Your task to perform on an android device: Look up the best rated gaming chair on Best Buy Image 0: 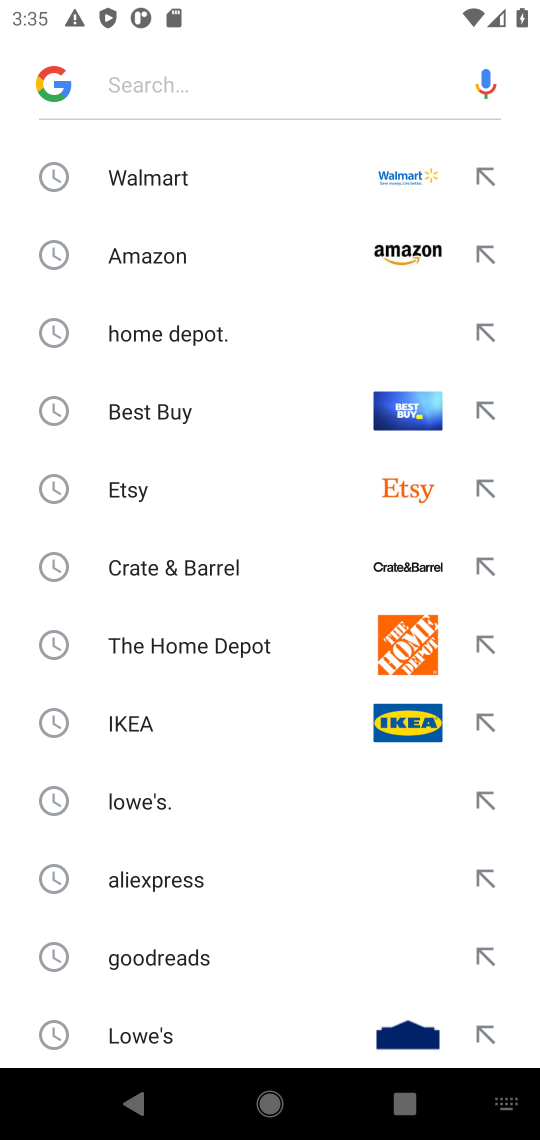
Step 0: press home button
Your task to perform on an android device: Look up the best rated gaming chair on Best Buy Image 1: 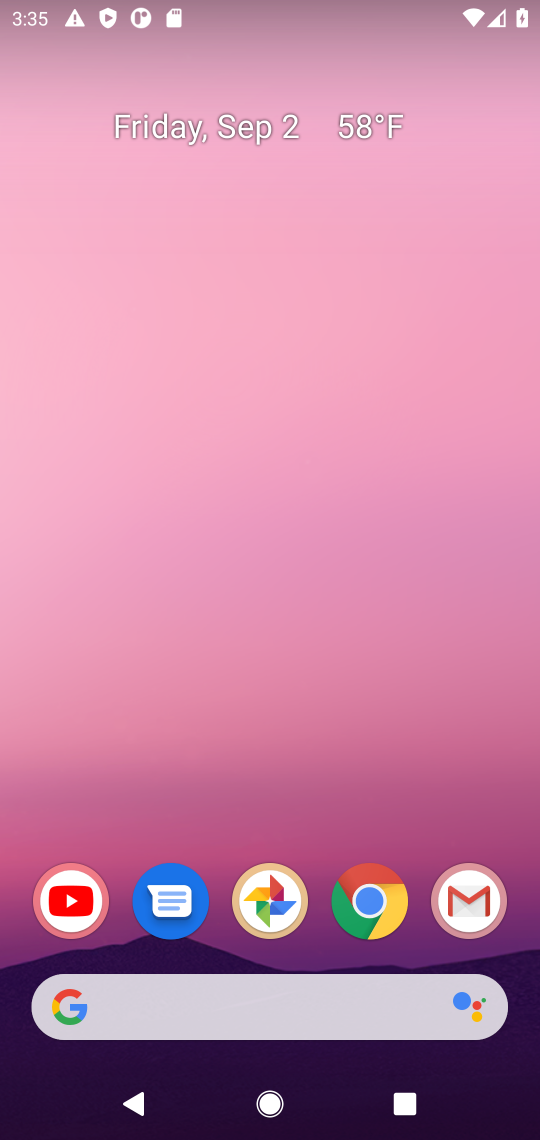
Step 1: drag from (366, 5) to (440, 62)
Your task to perform on an android device: Look up the best rated gaming chair on Best Buy Image 2: 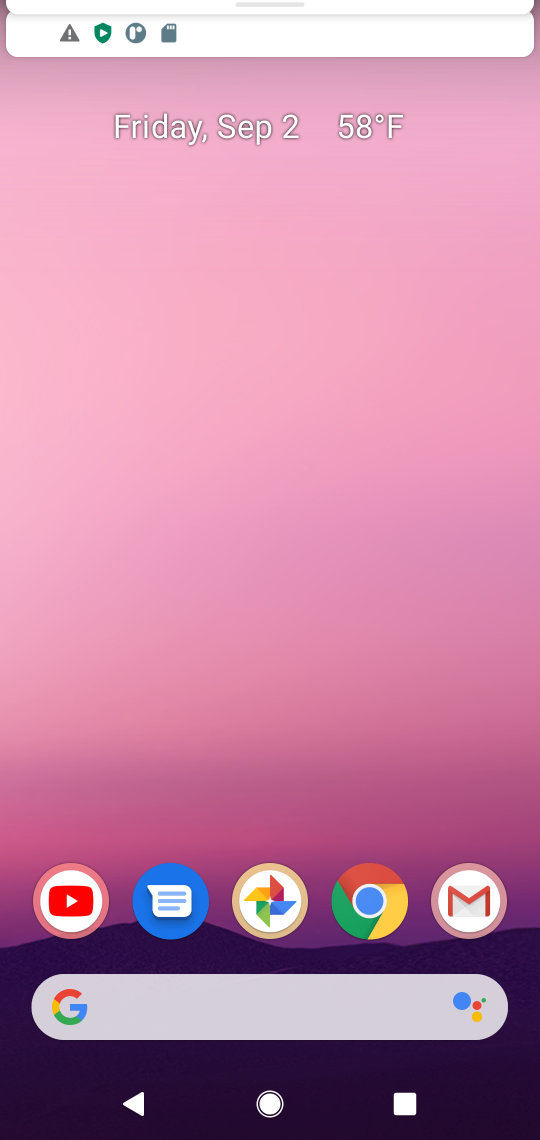
Step 2: drag from (406, 809) to (30, 71)
Your task to perform on an android device: Look up the best rated gaming chair on Best Buy Image 3: 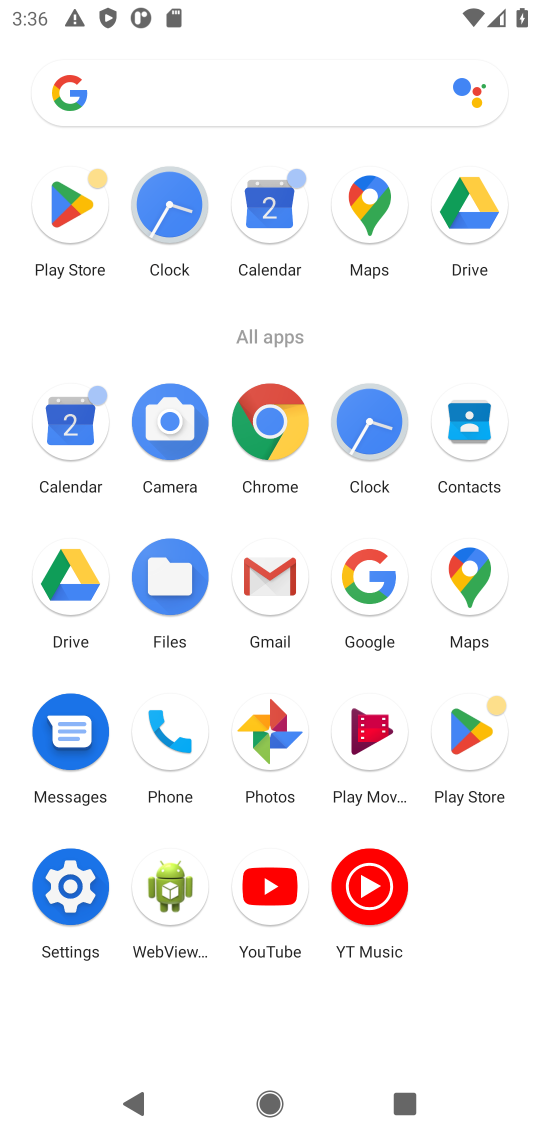
Step 3: click (384, 589)
Your task to perform on an android device: Look up the best rated gaming chair on Best Buy Image 4: 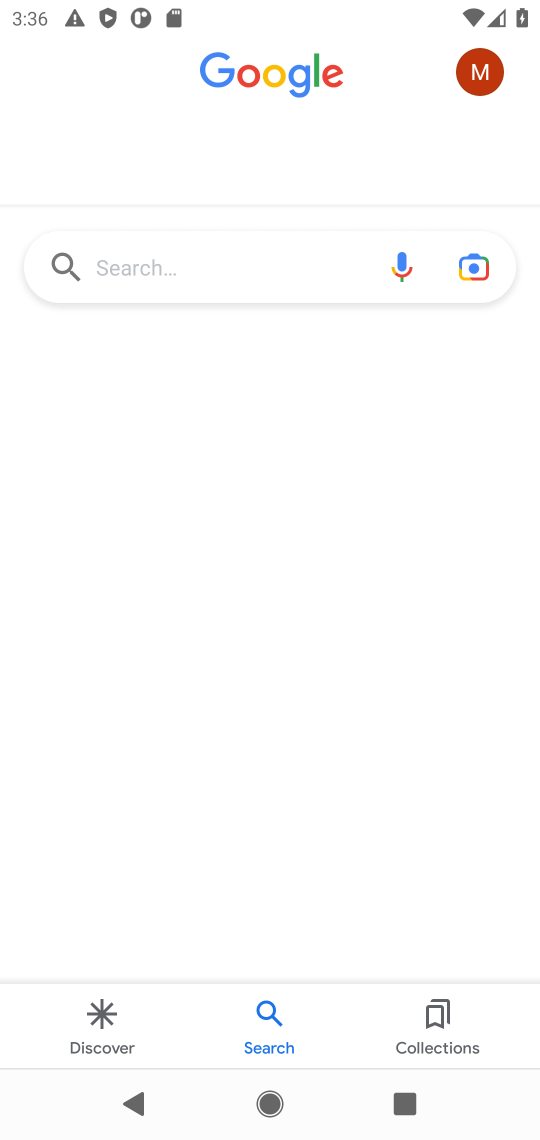
Step 4: click (133, 256)
Your task to perform on an android device: Look up the best rated gaming chair on Best Buy Image 5: 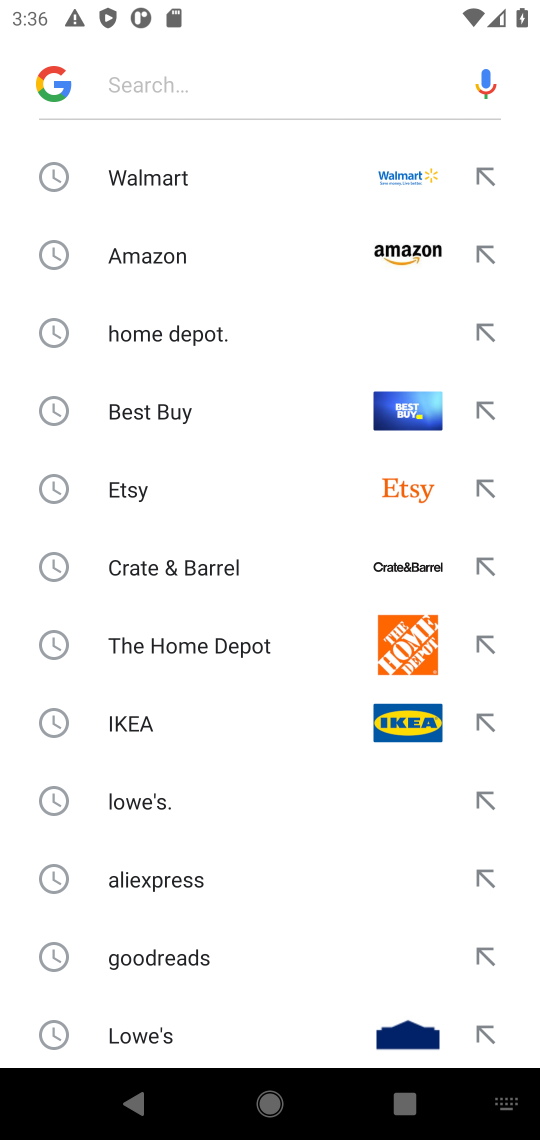
Step 5: click (151, 412)
Your task to perform on an android device: Look up the best rated gaming chair on Best Buy Image 6: 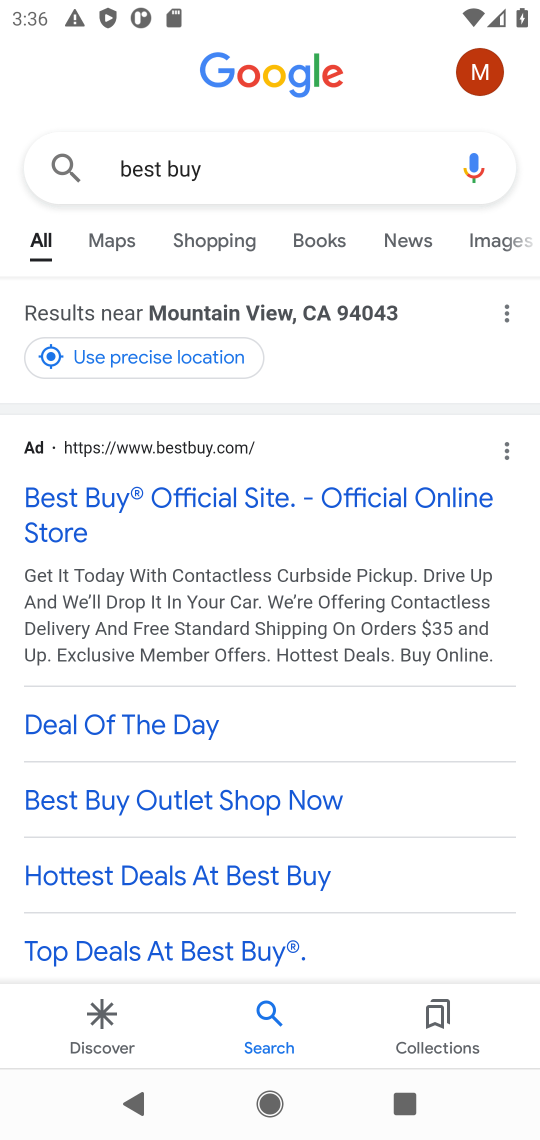
Step 6: click (155, 480)
Your task to perform on an android device: Look up the best rated gaming chair on Best Buy Image 7: 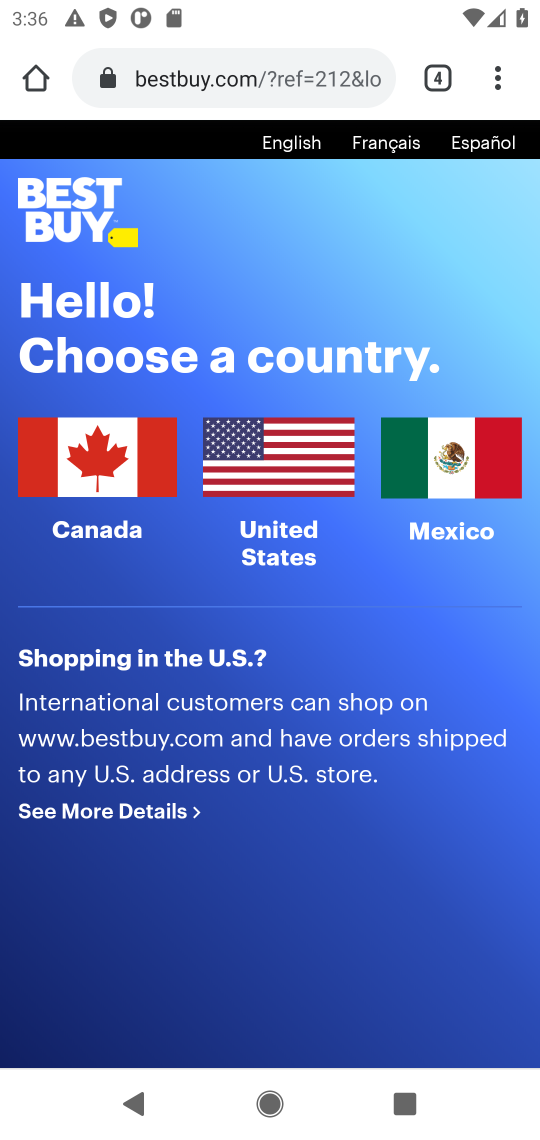
Step 7: task complete